Your task to perform on an android device: Open network settings Image 0: 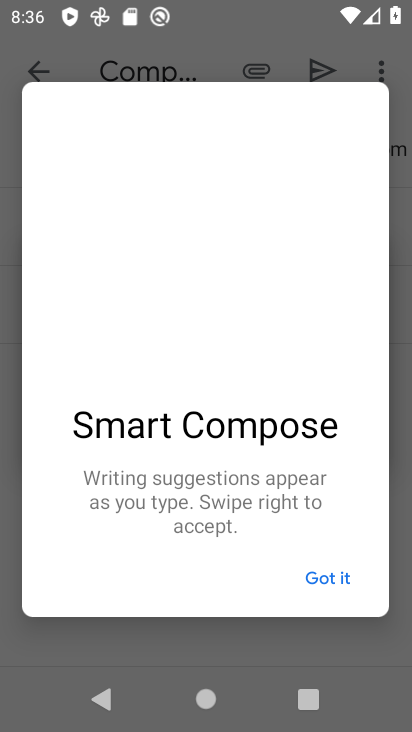
Step 0: press home button
Your task to perform on an android device: Open network settings Image 1: 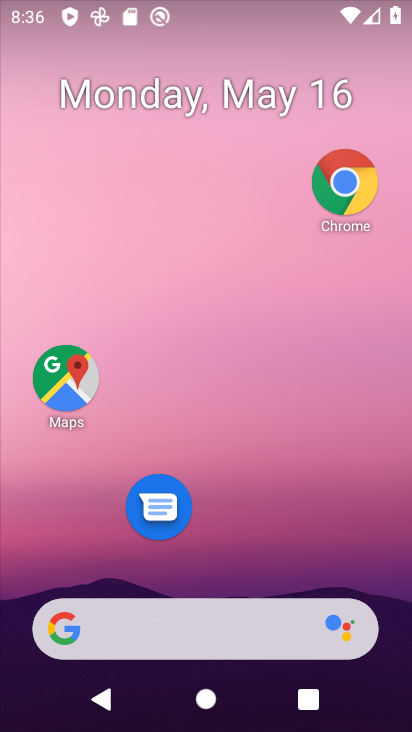
Step 1: drag from (329, 534) to (337, 165)
Your task to perform on an android device: Open network settings Image 2: 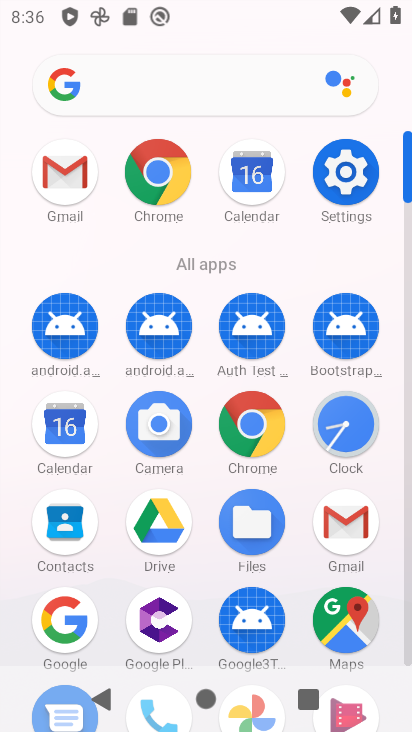
Step 2: click (350, 172)
Your task to perform on an android device: Open network settings Image 3: 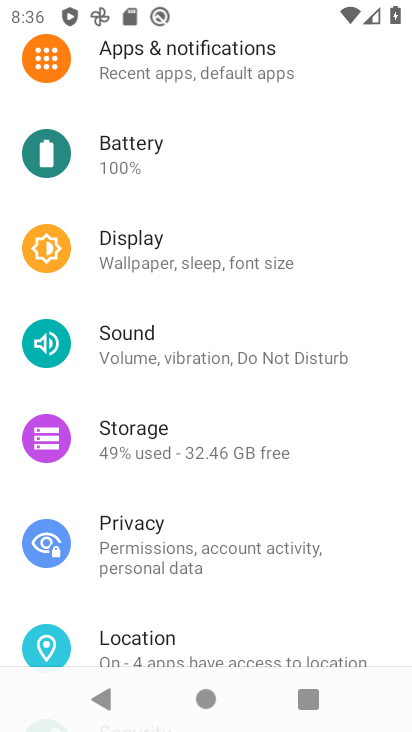
Step 3: drag from (281, 140) to (88, 669)
Your task to perform on an android device: Open network settings Image 4: 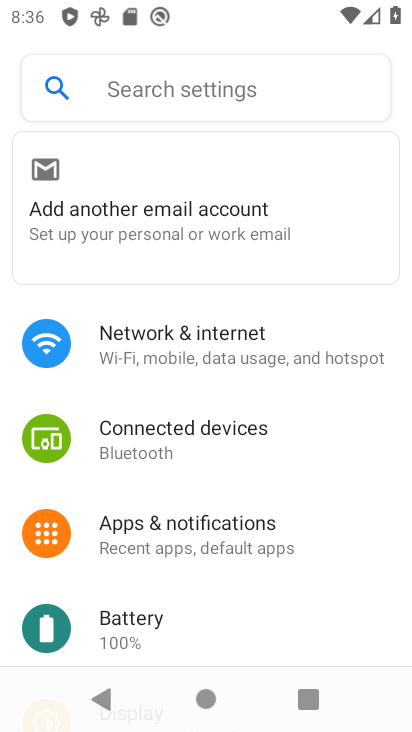
Step 4: click (156, 329)
Your task to perform on an android device: Open network settings Image 5: 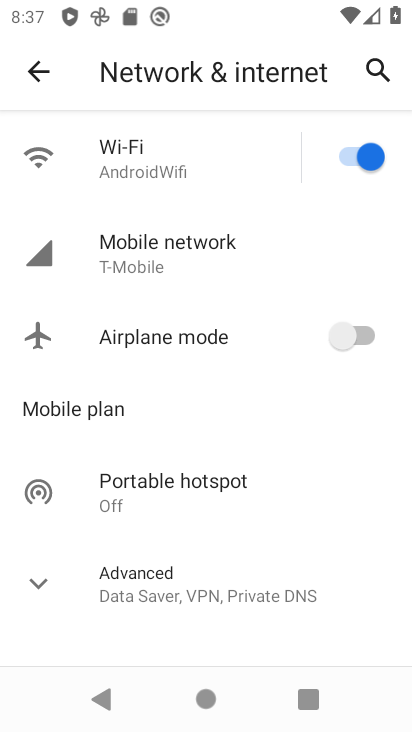
Step 5: task complete